Your task to perform on an android device: set the stopwatch Image 0: 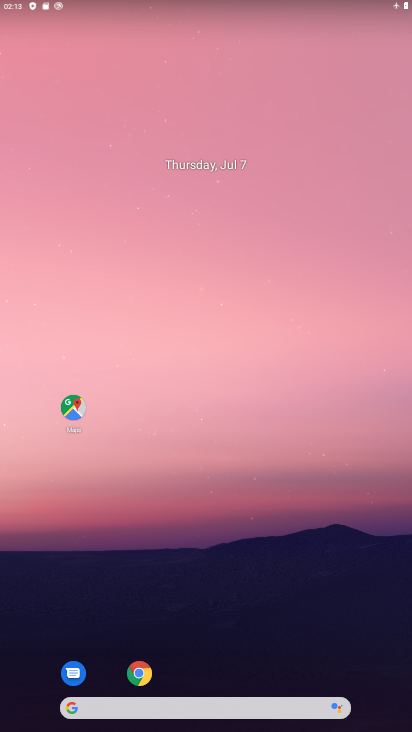
Step 0: drag from (256, 657) to (256, 274)
Your task to perform on an android device: set the stopwatch Image 1: 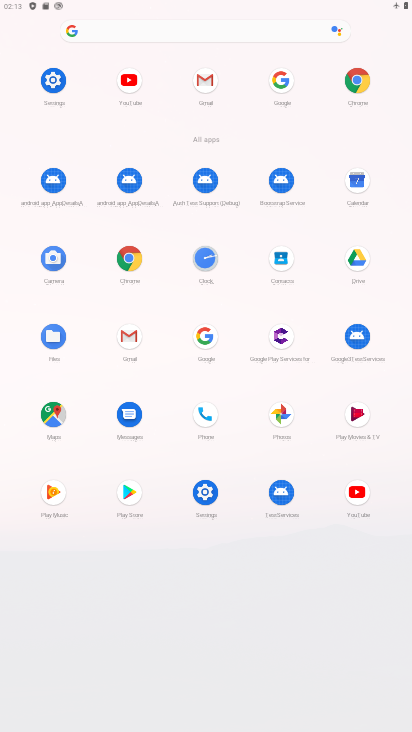
Step 1: click (206, 263)
Your task to perform on an android device: set the stopwatch Image 2: 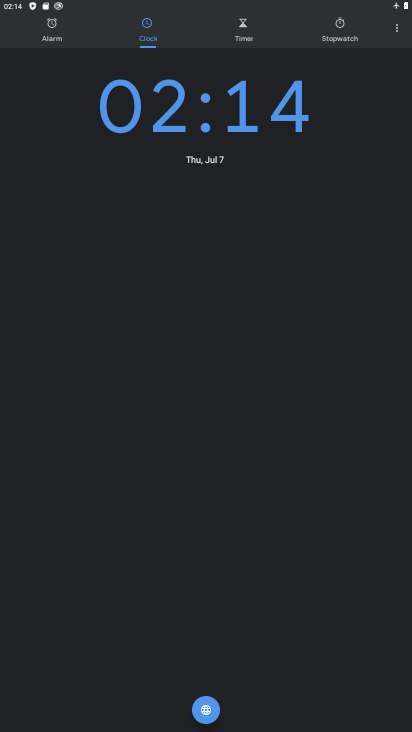
Step 2: click (346, 28)
Your task to perform on an android device: set the stopwatch Image 3: 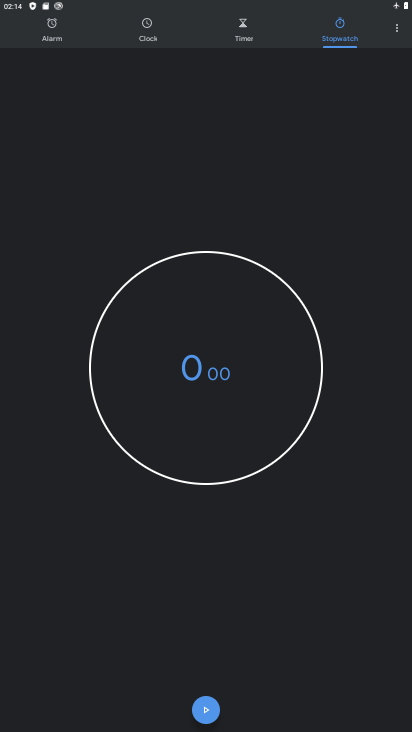
Step 3: click (202, 695)
Your task to perform on an android device: set the stopwatch Image 4: 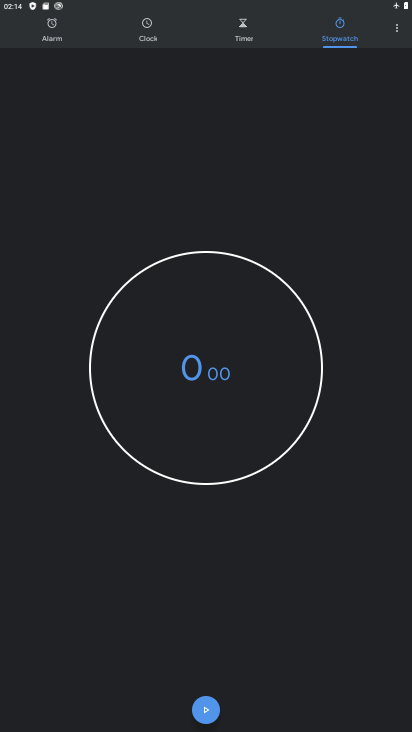
Step 4: task complete